Your task to perform on an android device: install app "Etsy: Buy & Sell Unique Items" Image 0: 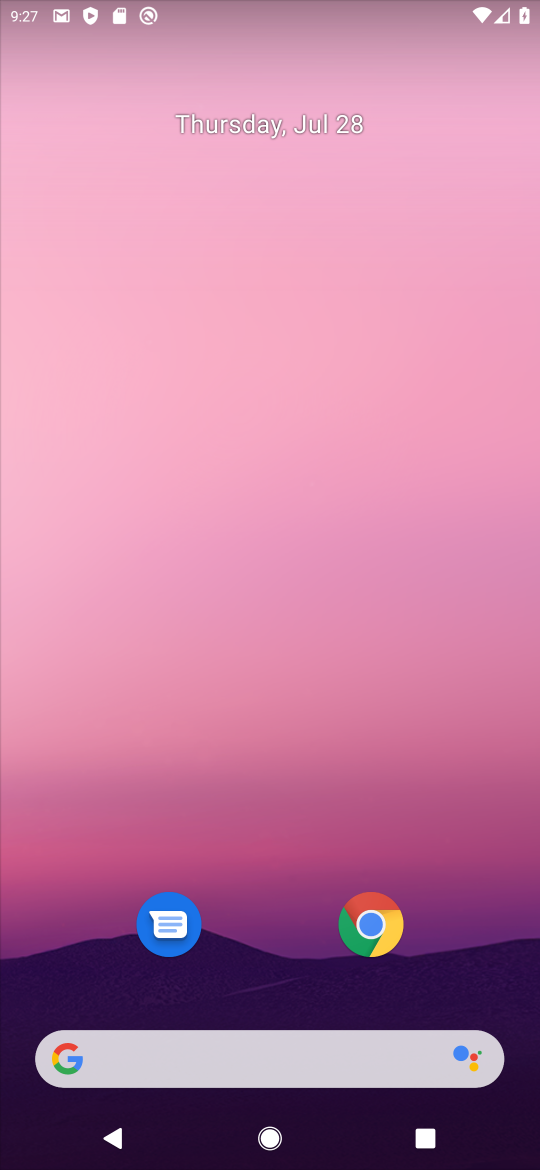
Step 0: drag from (273, 1074) to (333, 369)
Your task to perform on an android device: install app "Etsy: Buy & Sell Unique Items" Image 1: 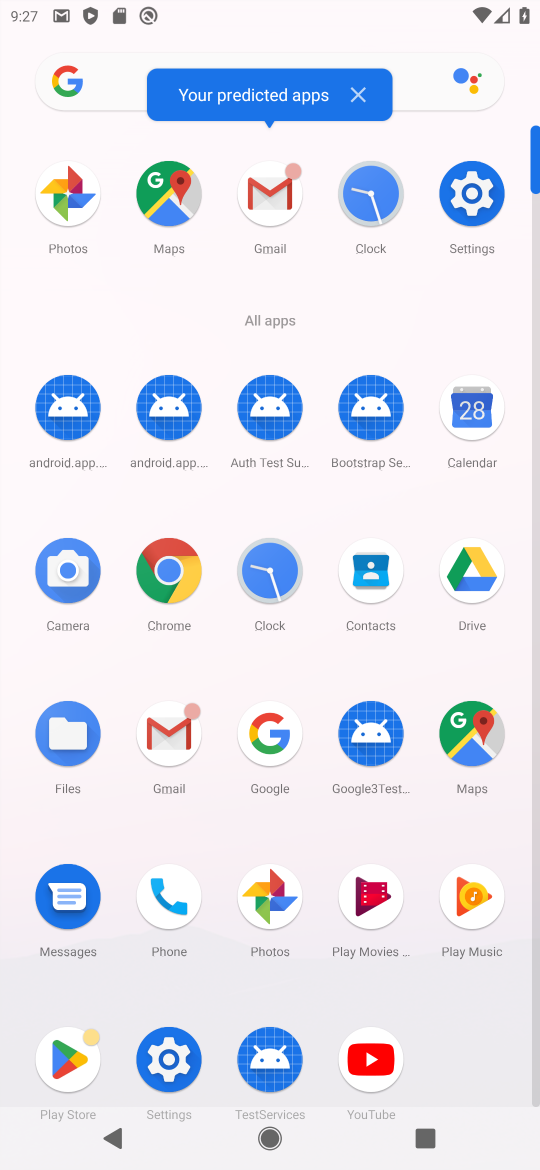
Step 1: click (87, 1053)
Your task to perform on an android device: install app "Etsy: Buy & Sell Unique Items" Image 2: 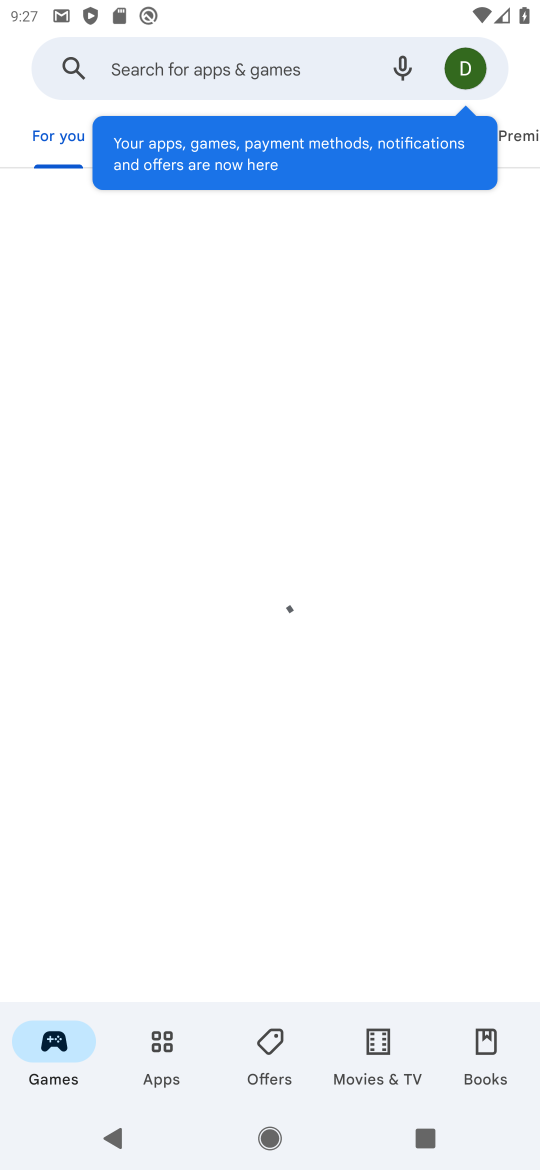
Step 2: click (287, 64)
Your task to perform on an android device: install app "Etsy: Buy & Sell Unique Items" Image 3: 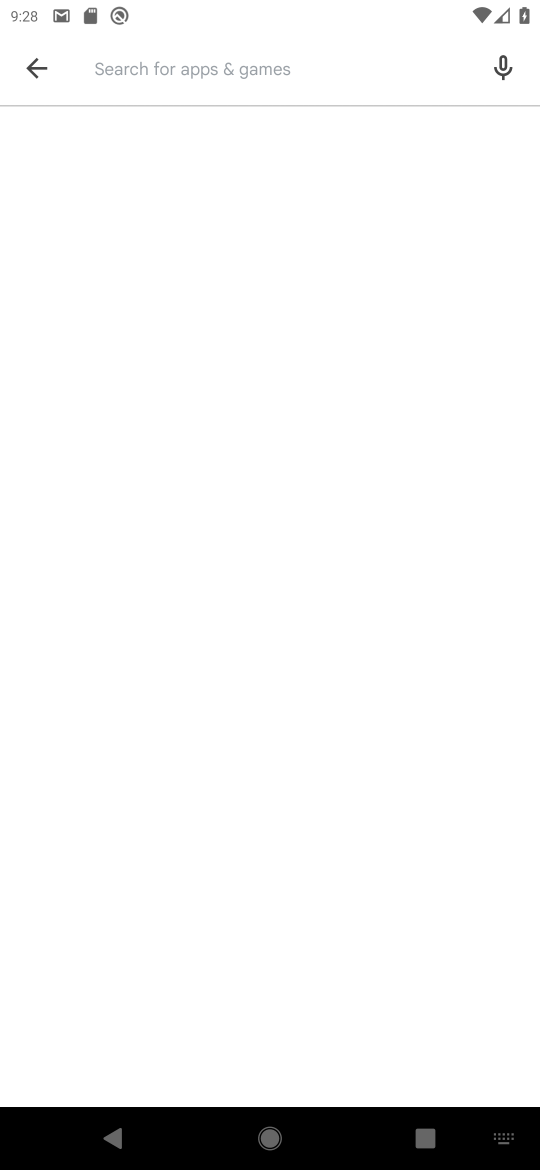
Step 3: type "Etsy: Buy & Sell Unique Items"
Your task to perform on an android device: install app "Etsy: Buy & Sell Unique Items" Image 4: 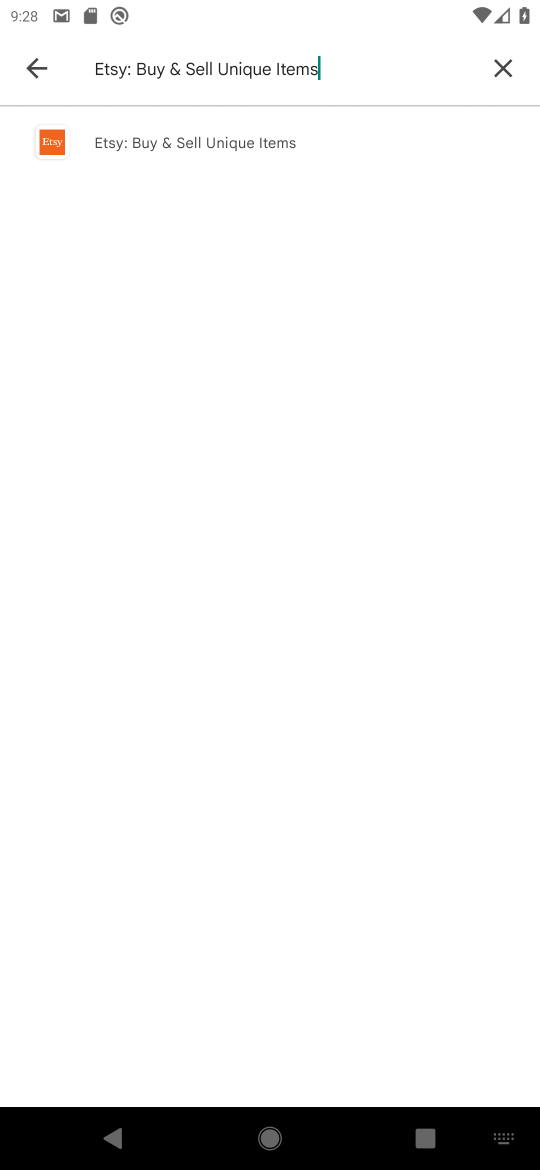
Step 4: click (198, 151)
Your task to perform on an android device: install app "Etsy: Buy & Sell Unique Items" Image 5: 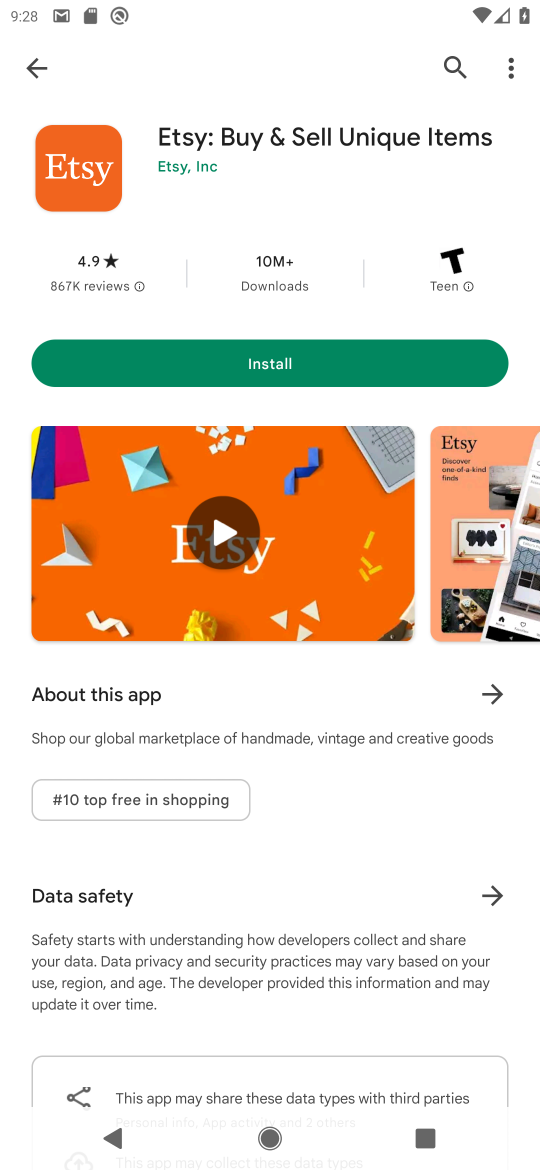
Step 5: click (272, 365)
Your task to perform on an android device: install app "Etsy: Buy & Sell Unique Items" Image 6: 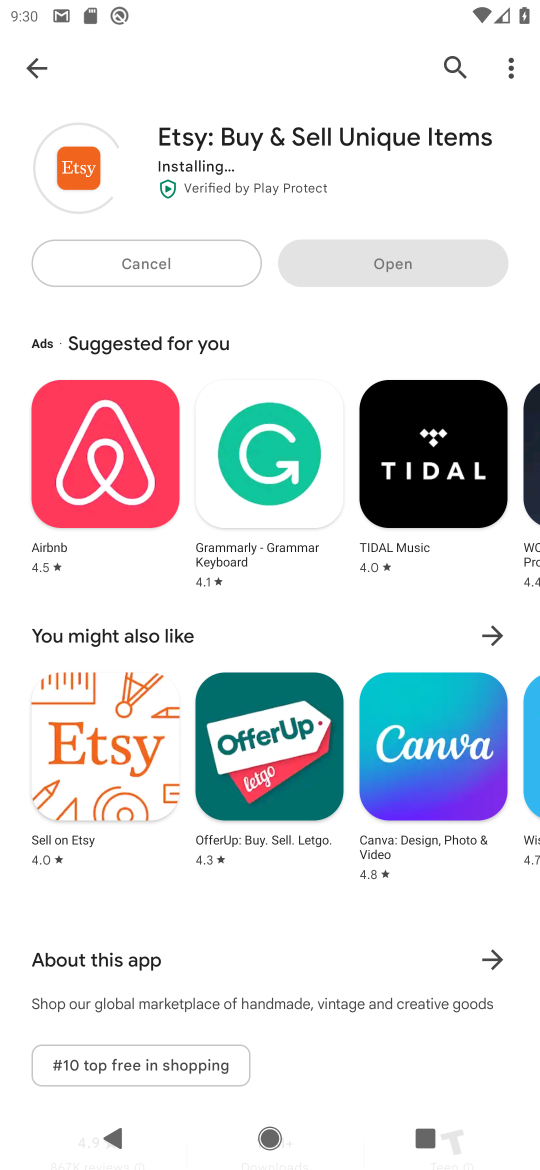
Step 6: task complete